Your task to perform on an android device: Go to wifi settings Image 0: 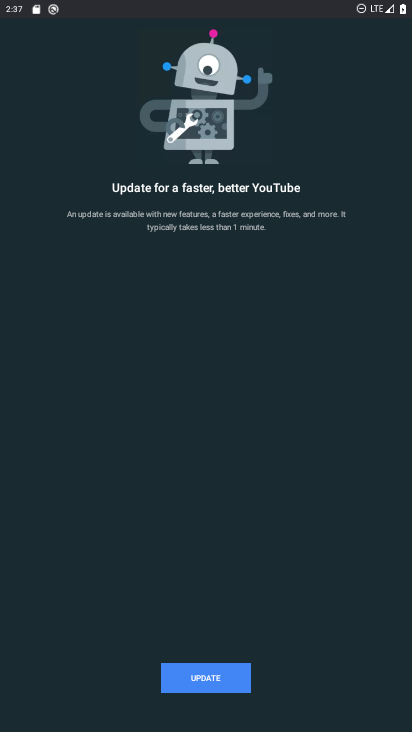
Step 0: drag from (400, 483) to (363, 398)
Your task to perform on an android device: Go to wifi settings Image 1: 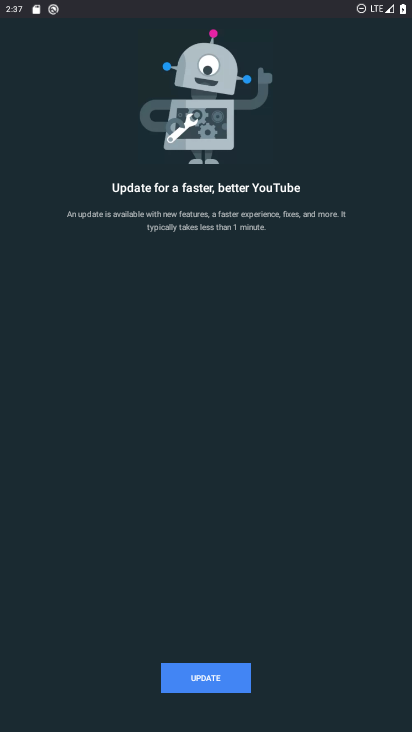
Step 1: press home button
Your task to perform on an android device: Go to wifi settings Image 2: 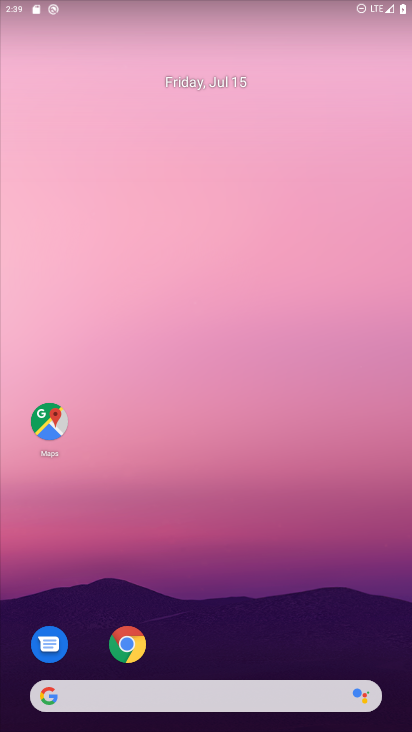
Step 2: drag from (191, 42) to (181, 383)
Your task to perform on an android device: Go to wifi settings Image 3: 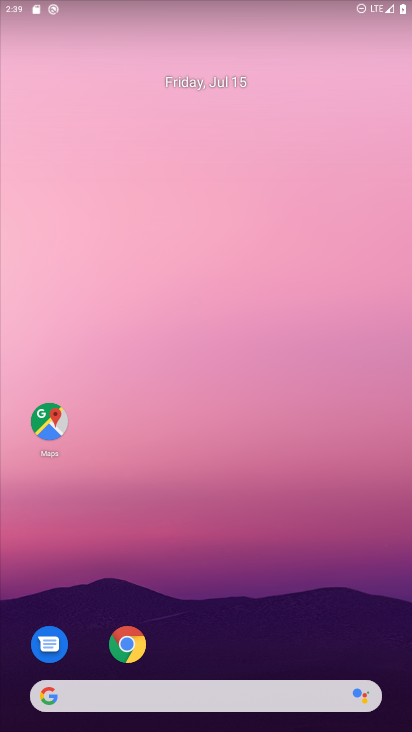
Step 3: drag from (160, 16) to (82, 417)
Your task to perform on an android device: Go to wifi settings Image 4: 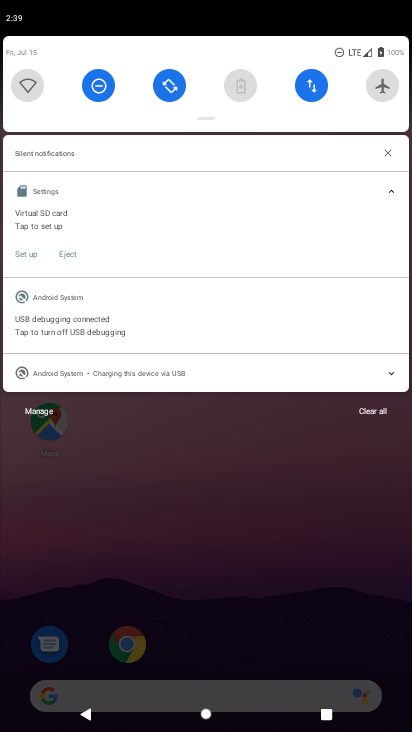
Step 4: click (27, 82)
Your task to perform on an android device: Go to wifi settings Image 5: 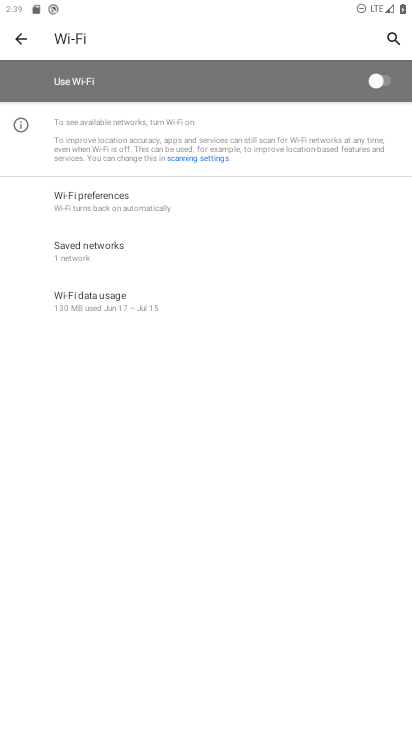
Step 5: task complete